Your task to perform on an android device: Open ESPN.com Image 0: 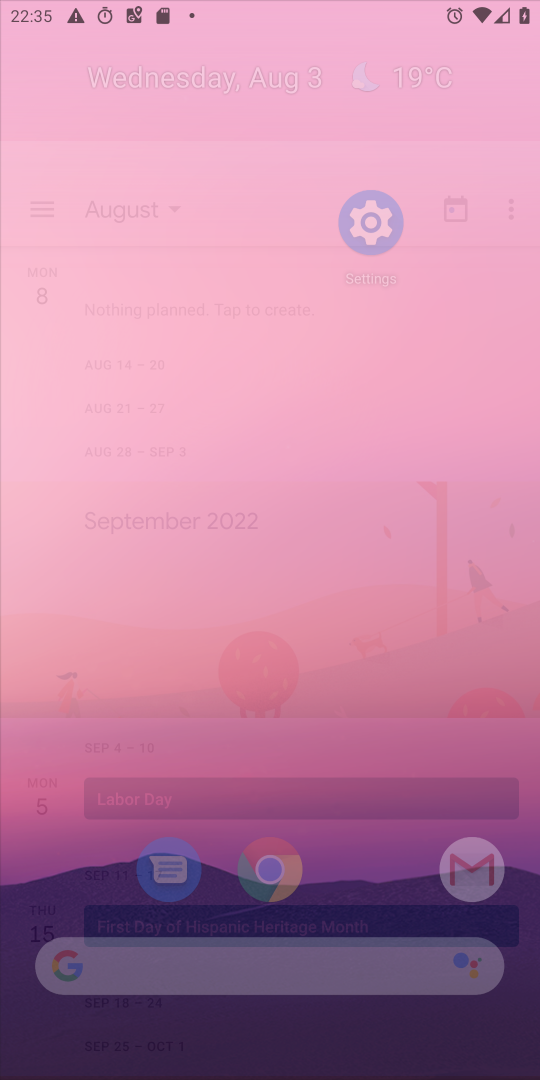
Step 0: press home button
Your task to perform on an android device: Open ESPN.com Image 1: 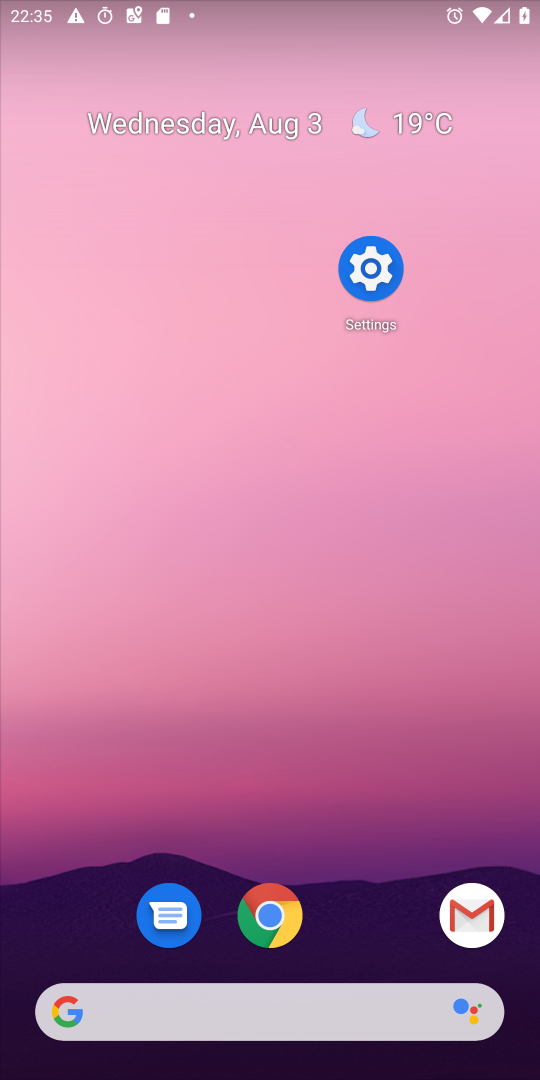
Step 1: drag from (308, 1046) to (203, 465)
Your task to perform on an android device: Open ESPN.com Image 2: 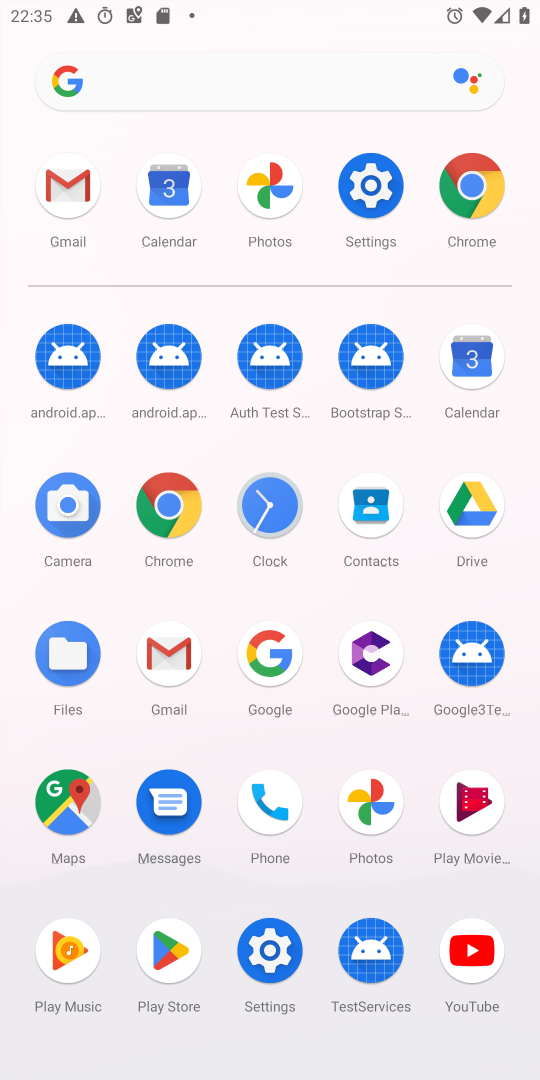
Step 2: click (474, 208)
Your task to perform on an android device: Open ESPN.com Image 3: 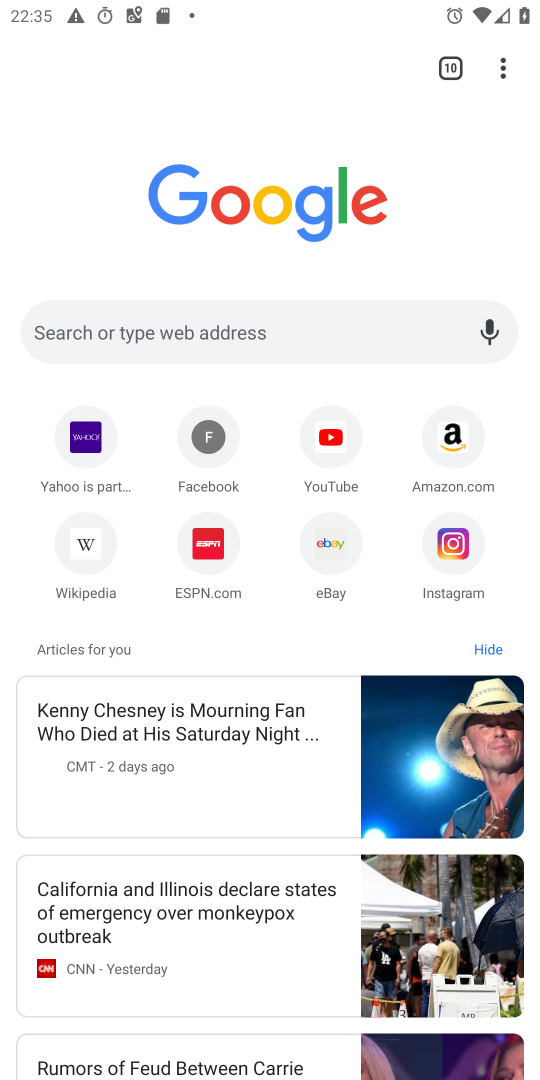
Step 3: click (215, 556)
Your task to perform on an android device: Open ESPN.com Image 4: 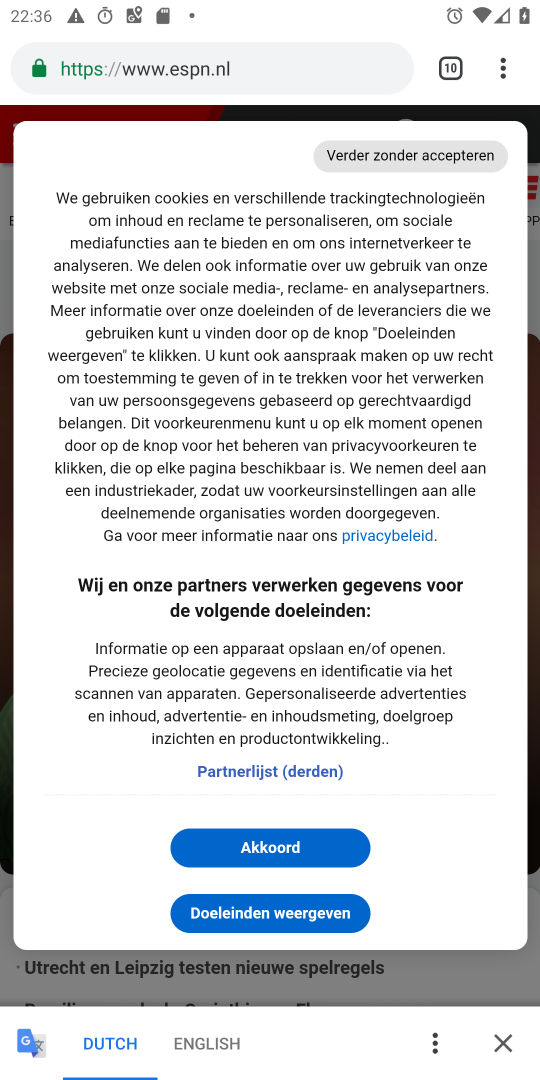
Step 4: click (305, 839)
Your task to perform on an android device: Open ESPN.com Image 5: 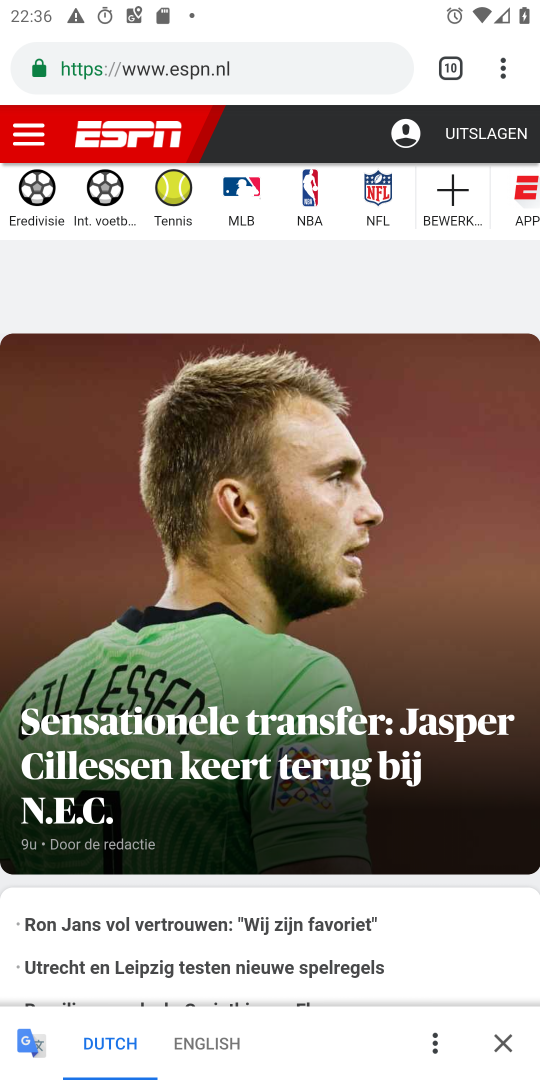
Step 5: task complete